Your task to perform on an android device: Open settings Image 0: 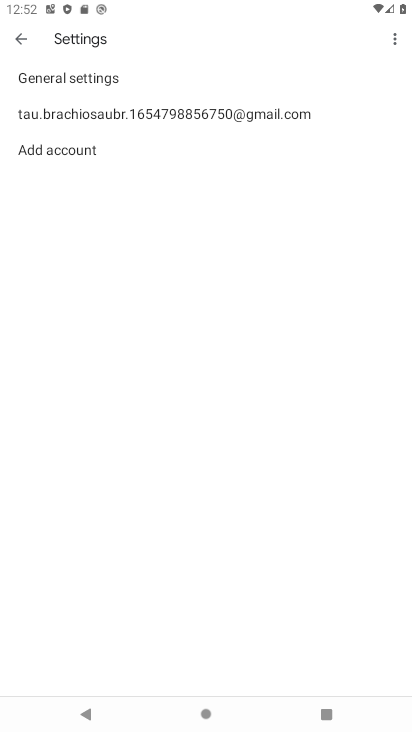
Step 0: press home button
Your task to perform on an android device: Open settings Image 1: 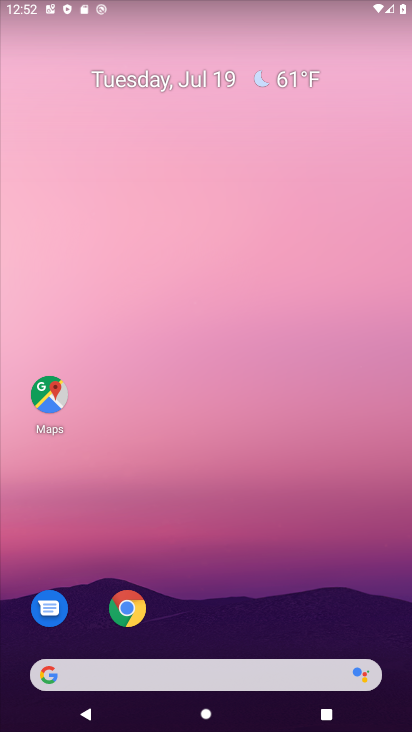
Step 1: drag from (279, 534) to (243, 90)
Your task to perform on an android device: Open settings Image 2: 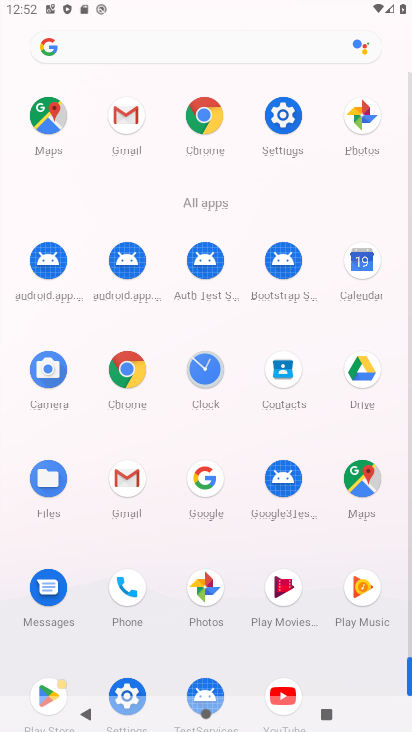
Step 2: click (288, 112)
Your task to perform on an android device: Open settings Image 3: 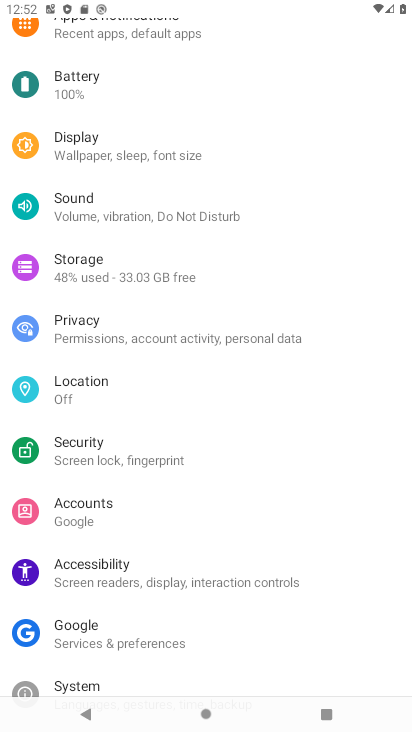
Step 3: task complete